Your task to perform on an android device: Open Google Maps Image 0: 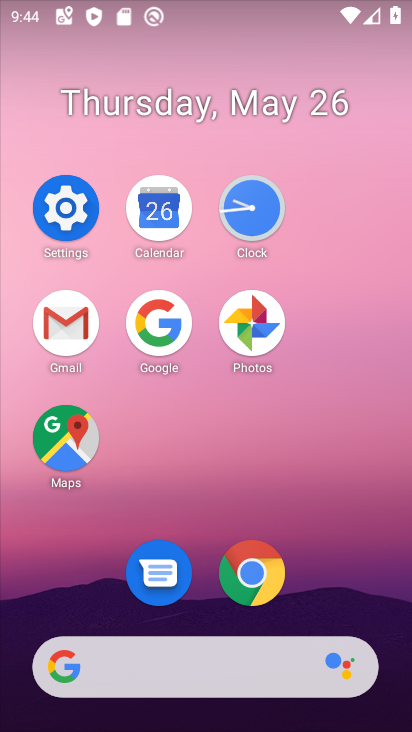
Step 0: click (90, 436)
Your task to perform on an android device: Open Google Maps Image 1: 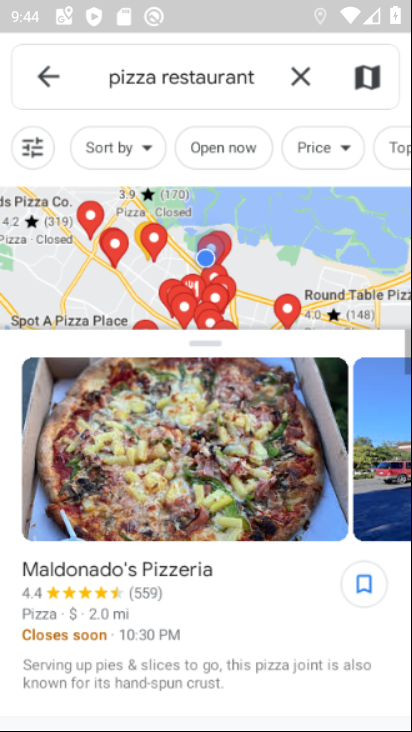
Step 1: task complete